Your task to perform on an android device: toggle javascript in the chrome app Image 0: 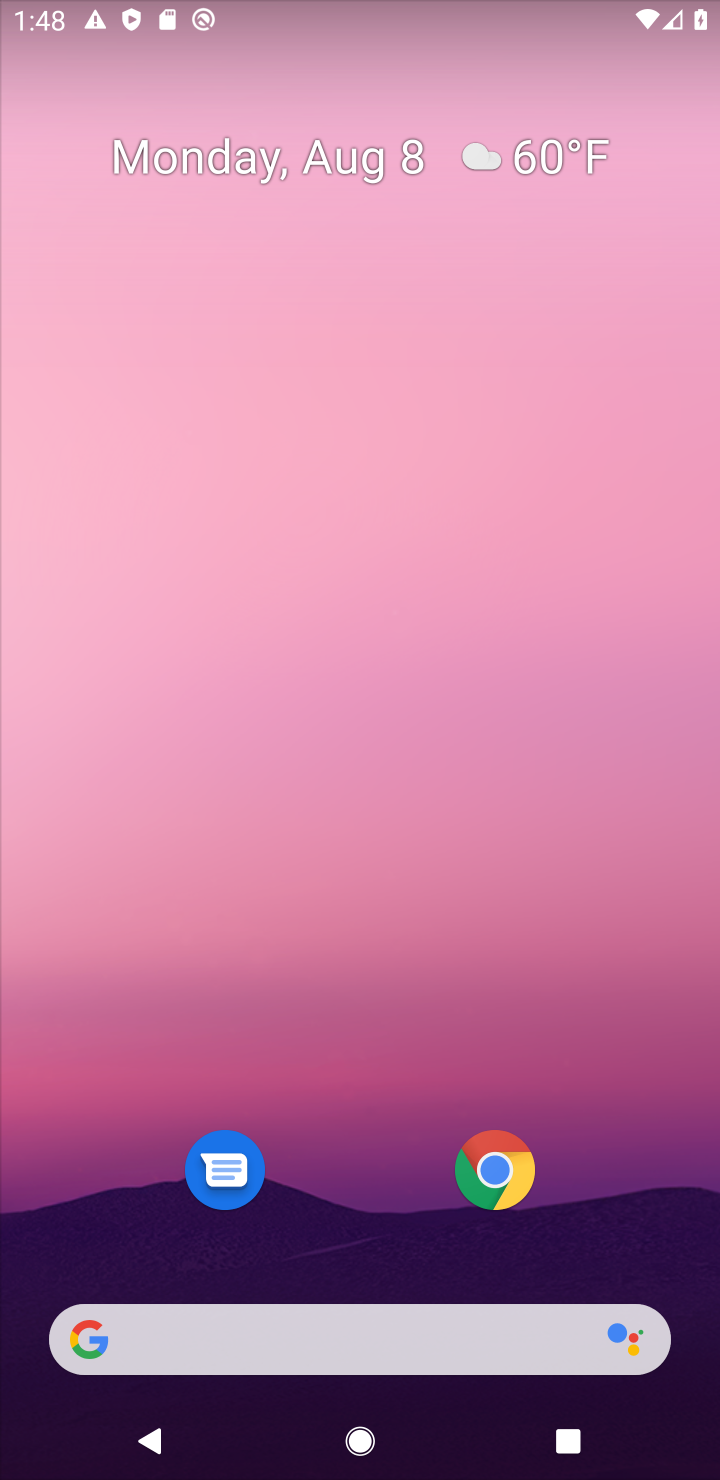
Step 0: click (509, 1217)
Your task to perform on an android device: toggle javascript in the chrome app Image 1: 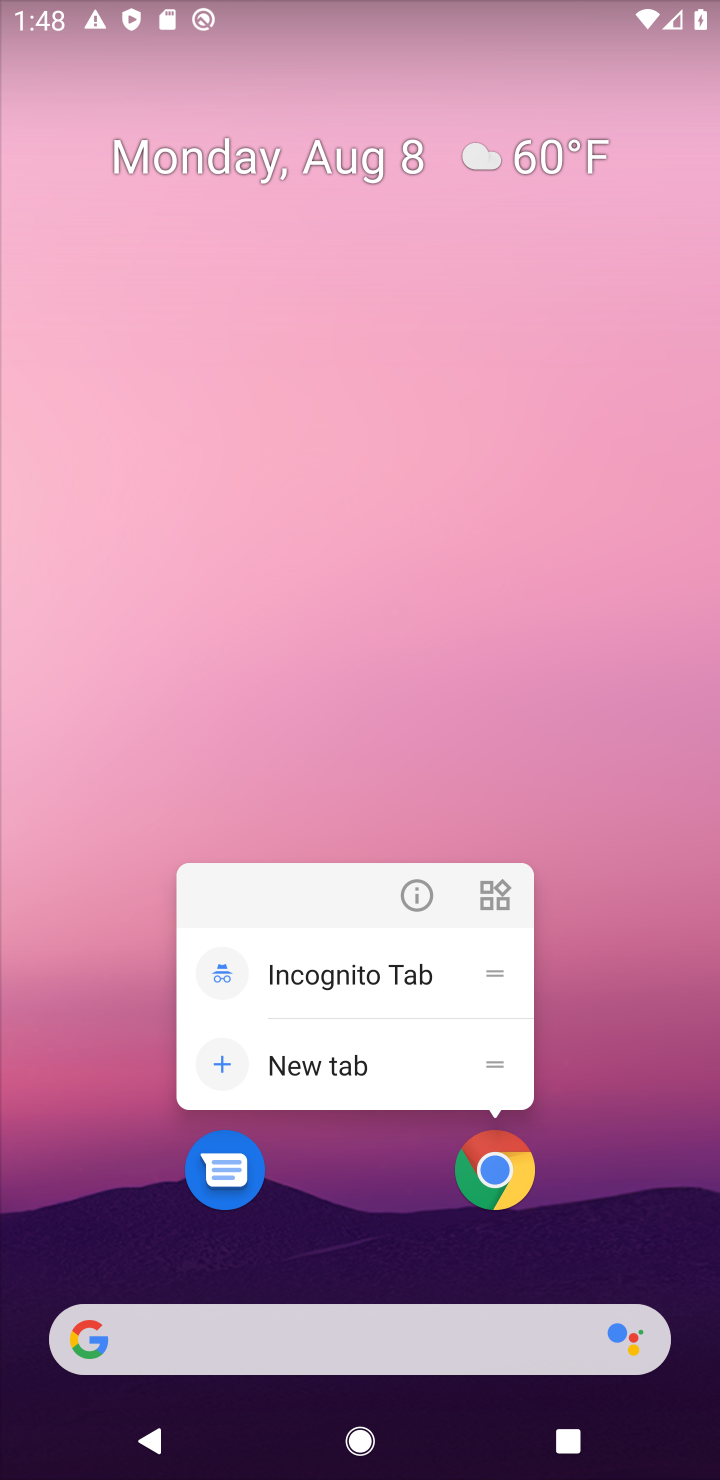
Step 1: click (490, 1138)
Your task to perform on an android device: toggle javascript in the chrome app Image 2: 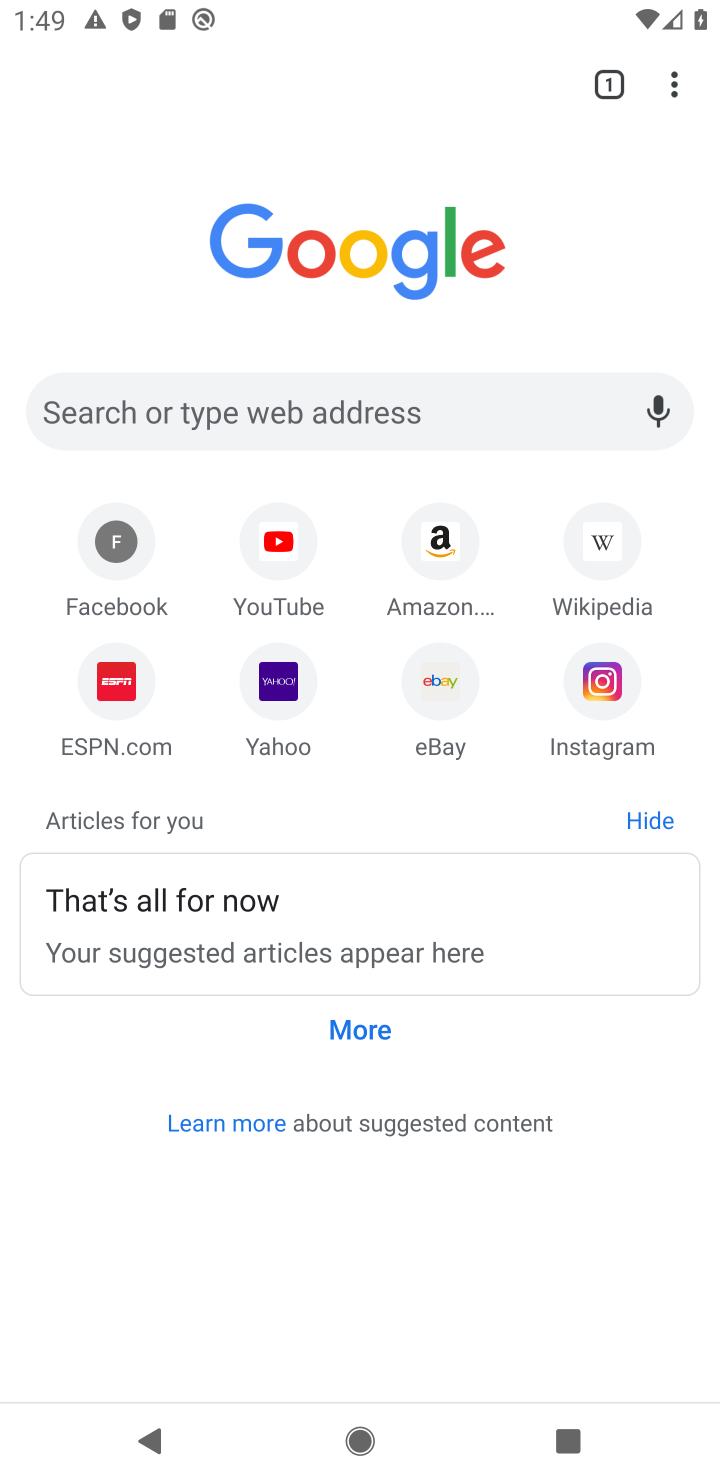
Step 2: click (673, 81)
Your task to perform on an android device: toggle javascript in the chrome app Image 3: 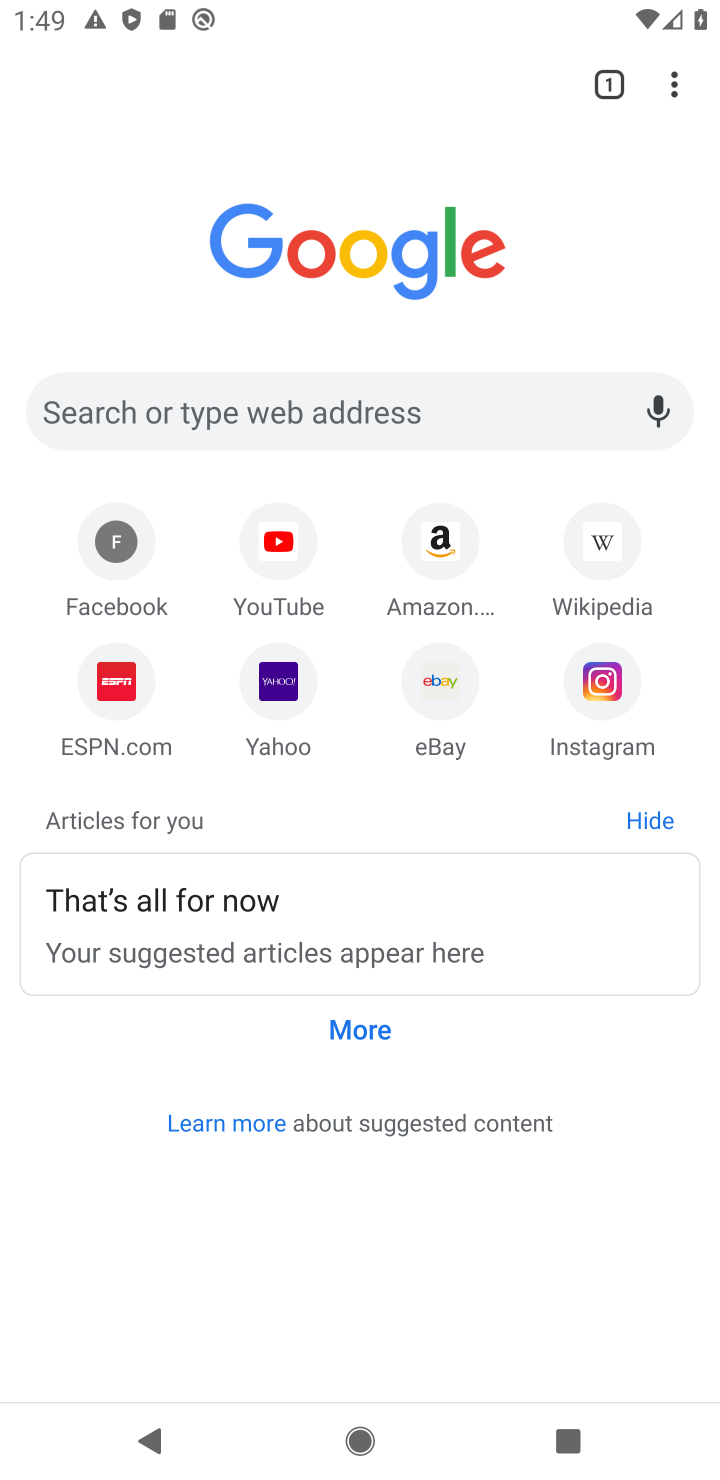
Step 3: click (673, 101)
Your task to perform on an android device: toggle javascript in the chrome app Image 4: 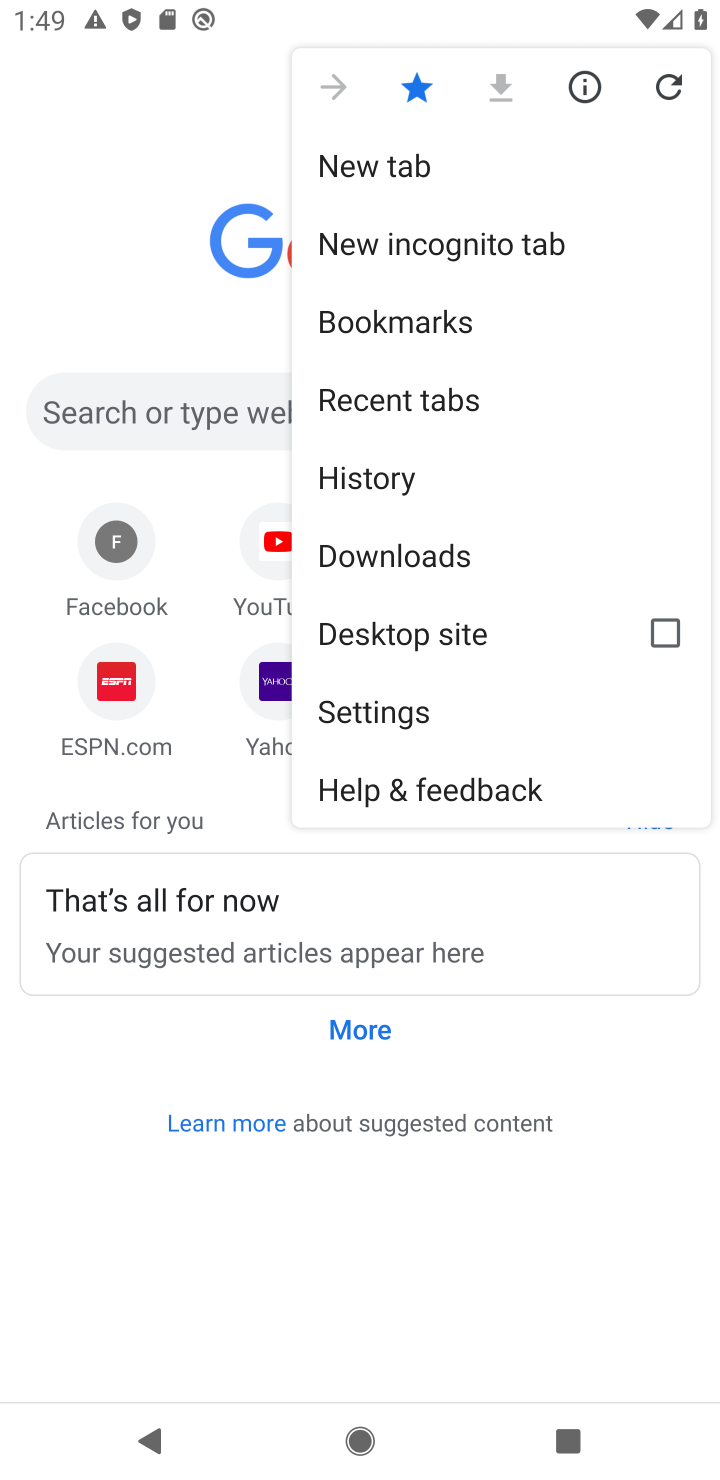
Step 4: click (410, 702)
Your task to perform on an android device: toggle javascript in the chrome app Image 5: 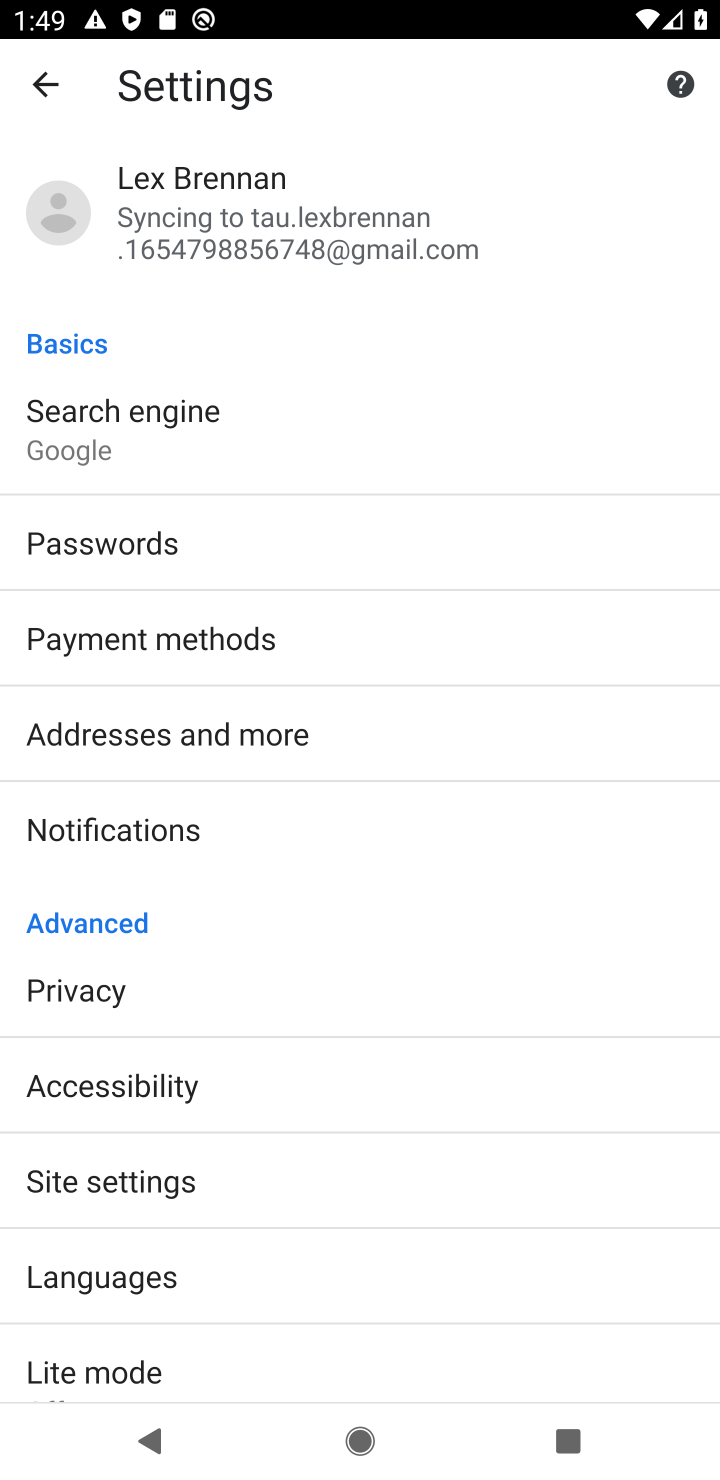
Step 5: click (260, 1170)
Your task to perform on an android device: toggle javascript in the chrome app Image 6: 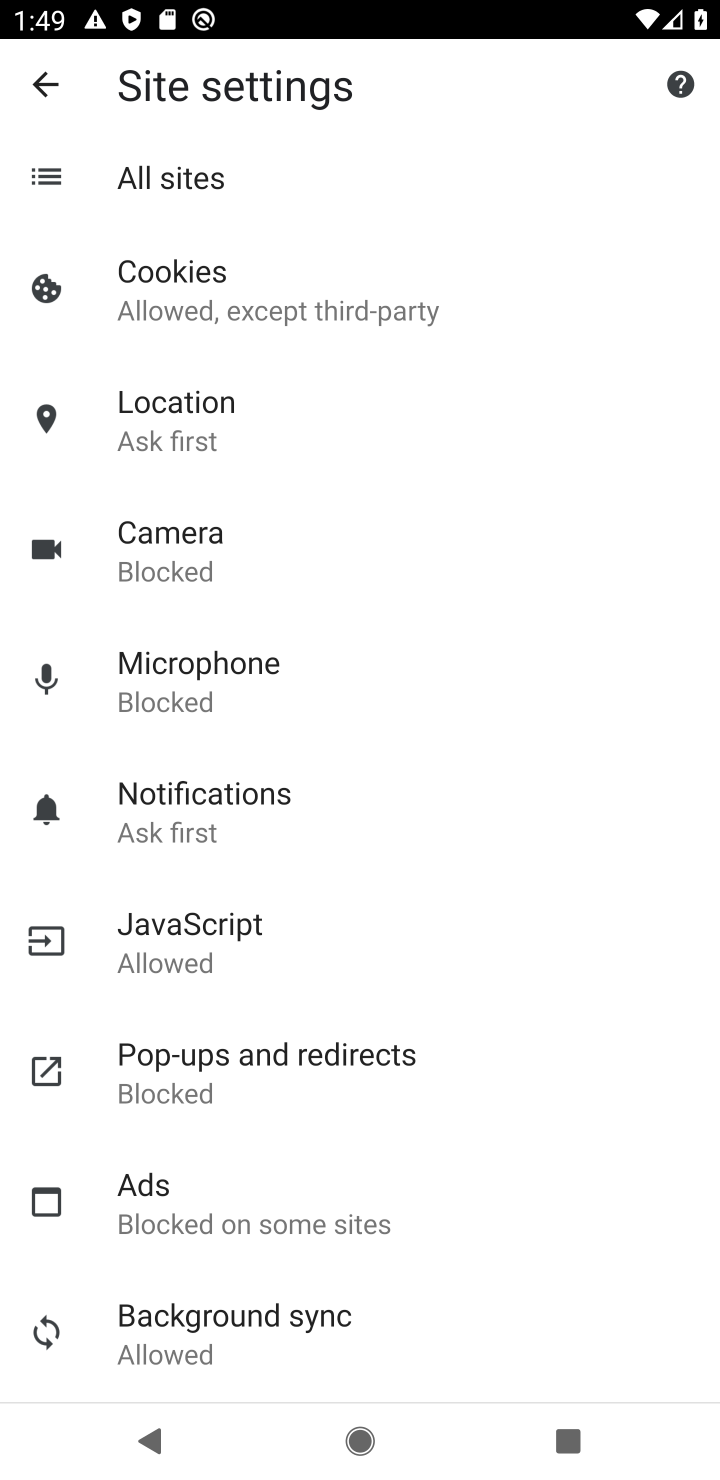
Step 6: click (279, 969)
Your task to perform on an android device: toggle javascript in the chrome app Image 7: 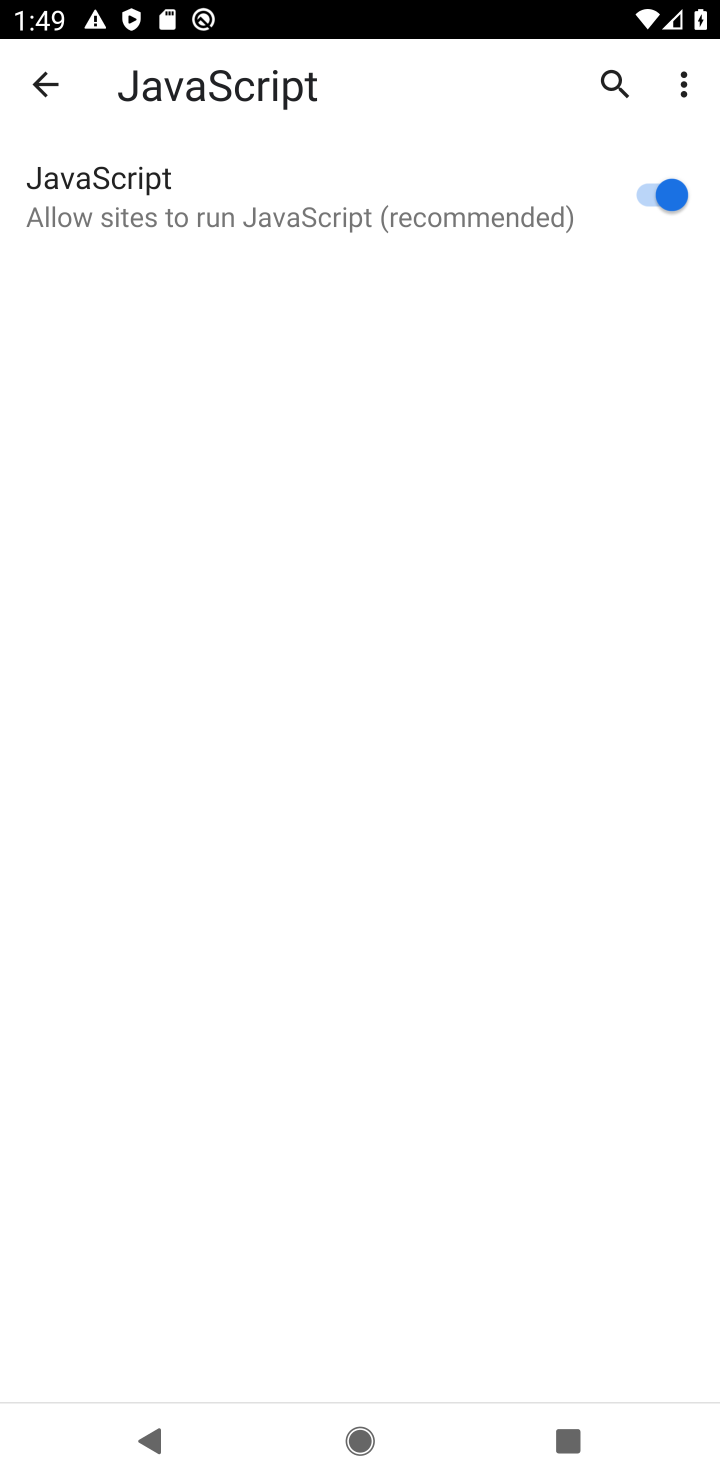
Step 7: click (665, 195)
Your task to perform on an android device: toggle javascript in the chrome app Image 8: 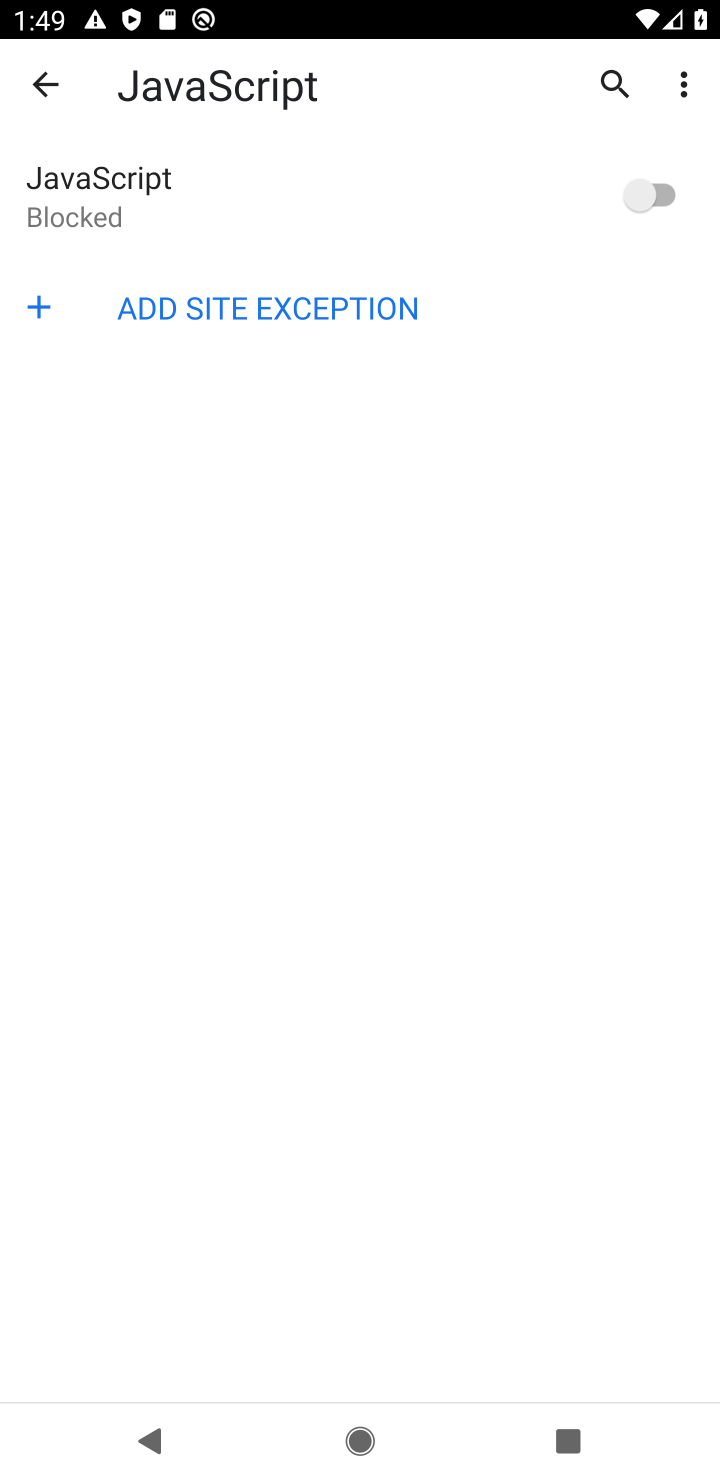
Step 8: task complete